Your task to perform on an android device: Open settings Image 0: 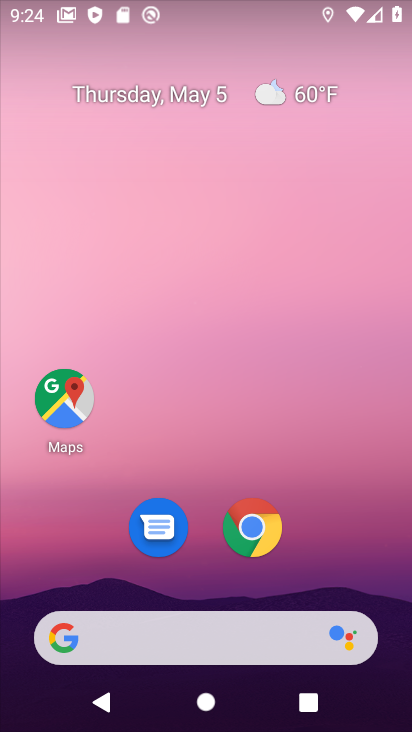
Step 0: drag from (74, 551) to (225, 11)
Your task to perform on an android device: Open settings Image 1: 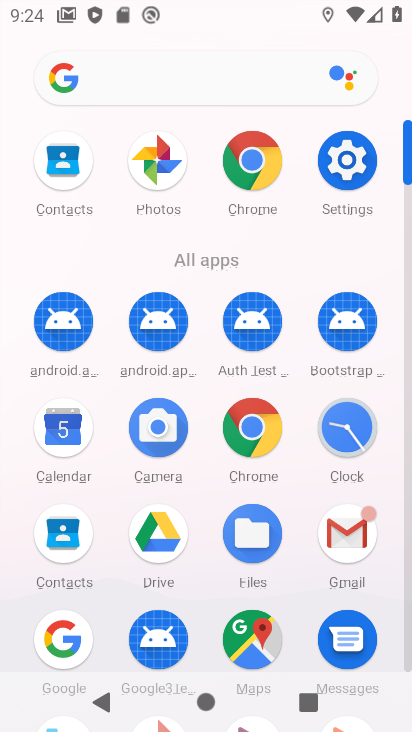
Step 1: click (349, 170)
Your task to perform on an android device: Open settings Image 2: 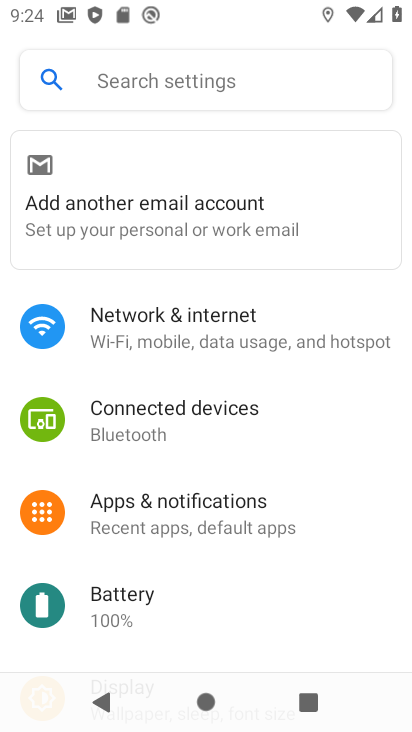
Step 2: task complete